Your task to perform on an android device: turn on translation in the chrome app Image 0: 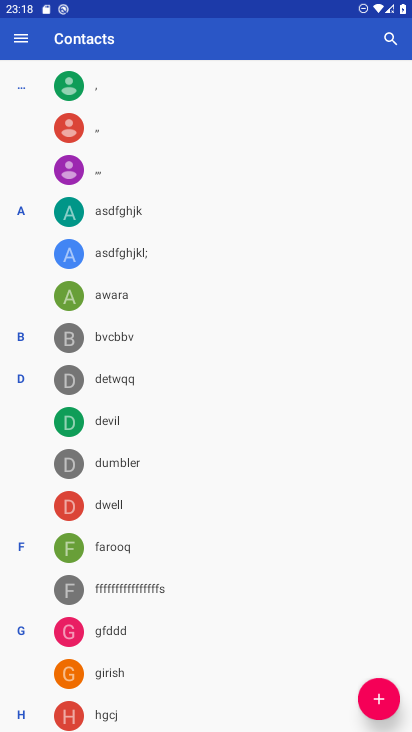
Step 0: press home button
Your task to perform on an android device: turn on translation in the chrome app Image 1: 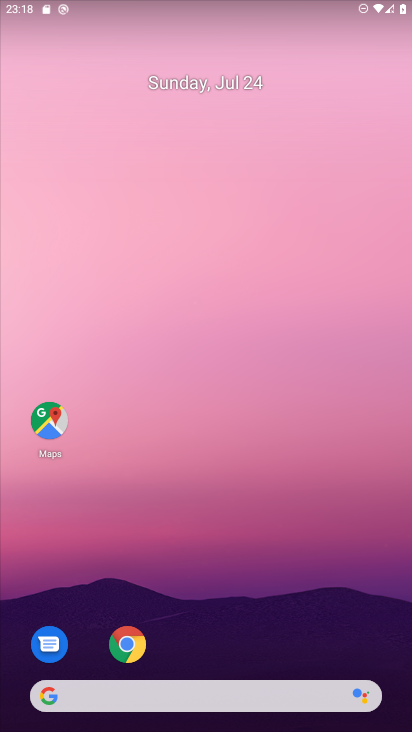
Step 1: click (130, 645)
Your task to perform on an android device: turn on translation in the chrome app Image 2: 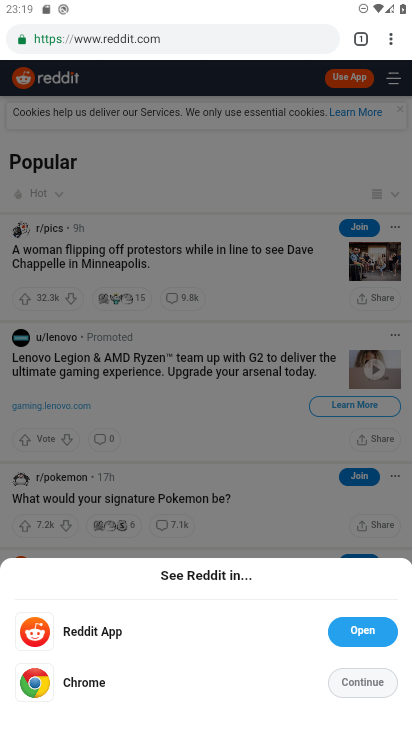
Step 2: click (390, 44)
Your task to perform on an android device: turn on translation in the chrome app Image 3: 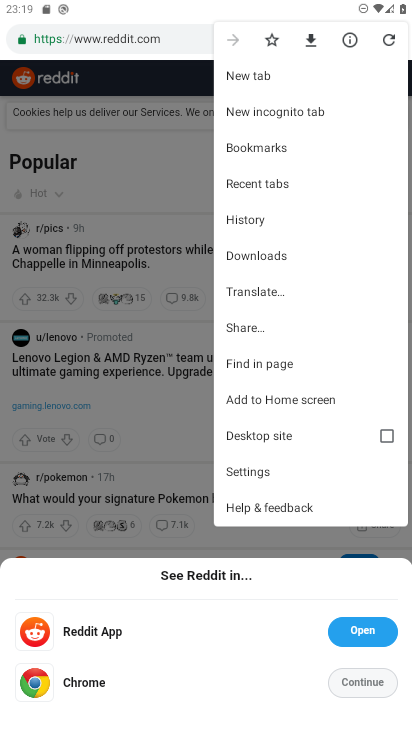
Step 3: click (258, 473)
Your task to perform on an android device: turn on translation in the chrome app Image 4: 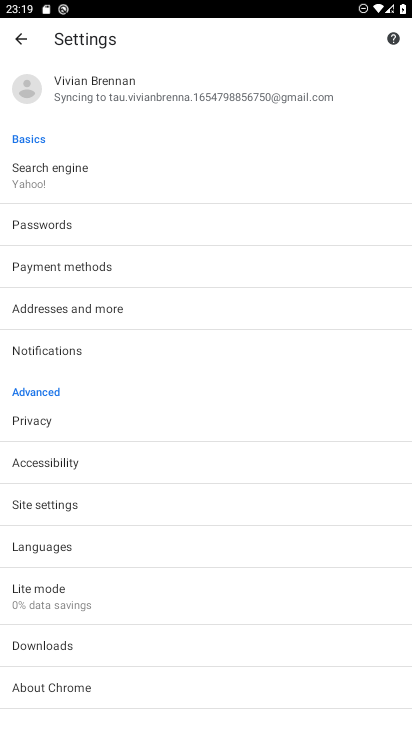
Step 4: click (49, 551)
Your task to perform on an android device: turn on translation in the chrome app Image 5: 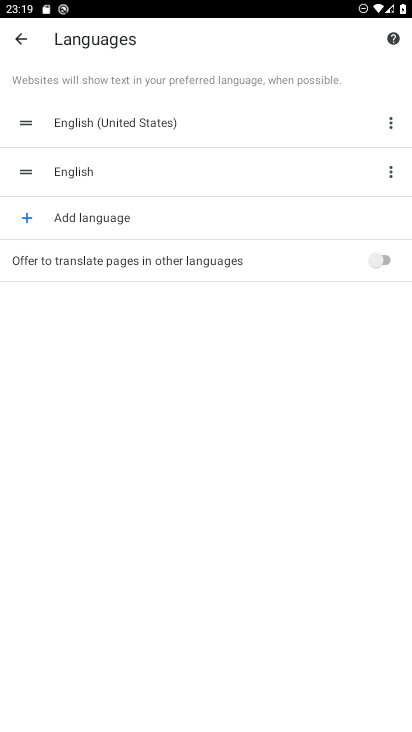
Step 5: click (385, 261)
Your task to perform on an android device: turn on translation in the chrome app Image 6: 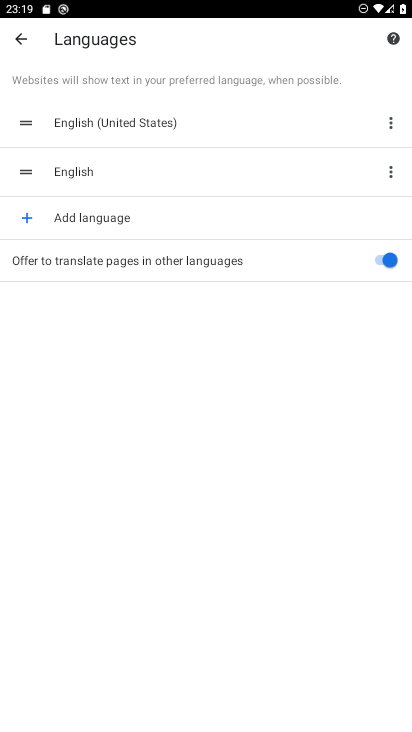
Step 6: task complete